Your task to perform on an android device: Go to accessibility settings Image 0: 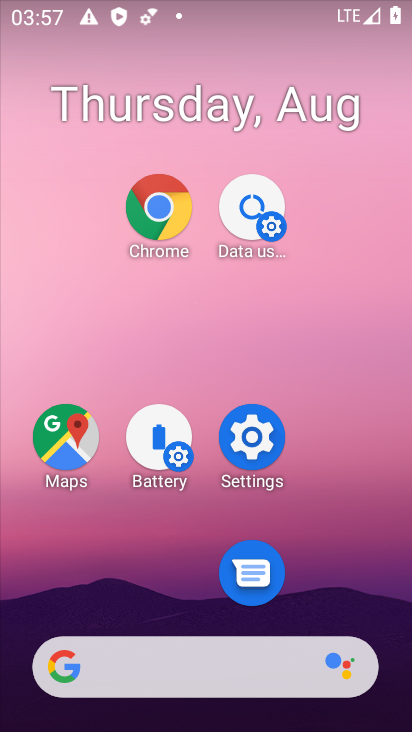
Step 0: drag from (280, 703) to (265, 257)
Your task to perform on an android device: Go to accessibility settings Image 1: 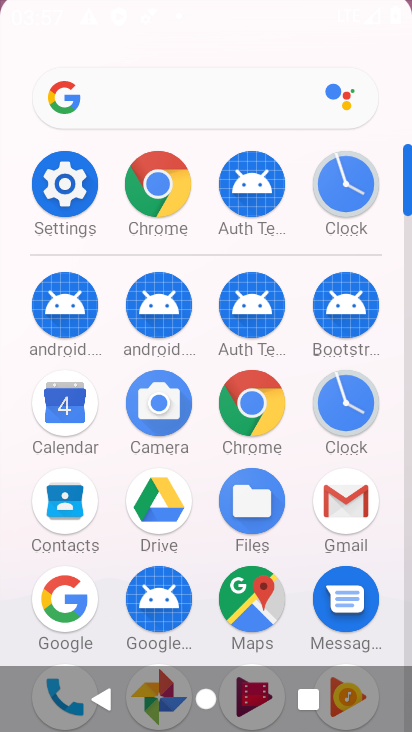
Step 1: drag from (277, 384) to (259, 128)
Your task to perform on an android device: Go to accessibility settings Image 2: 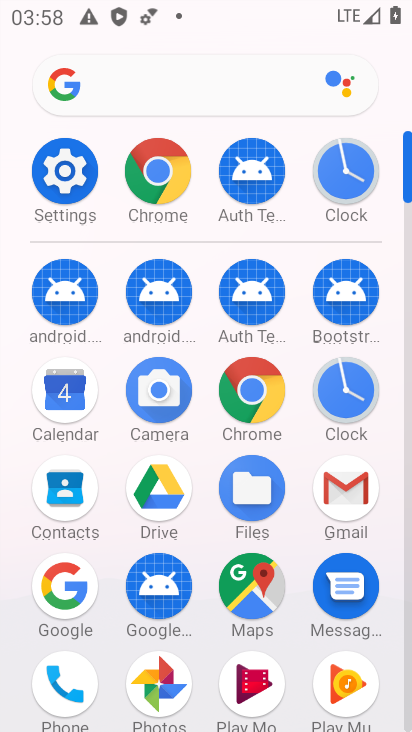
Step 2: click (69, 168)
Your task to perform on an android device: Go to accessibility settings Image 3: 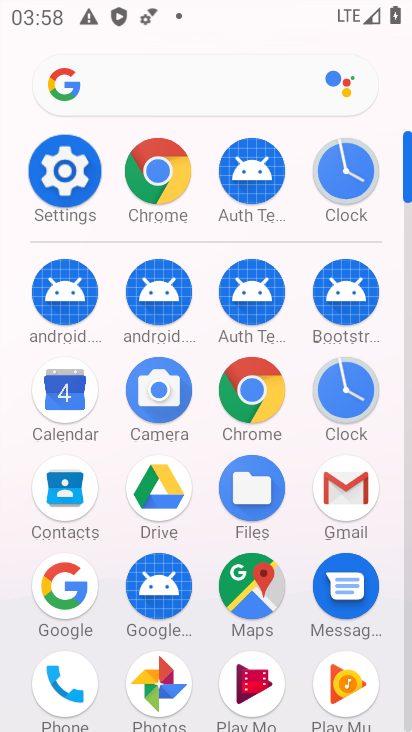
Step 3: click (69, 168)
Your task to perform on an android device: Go to accessibility settings Image 4: 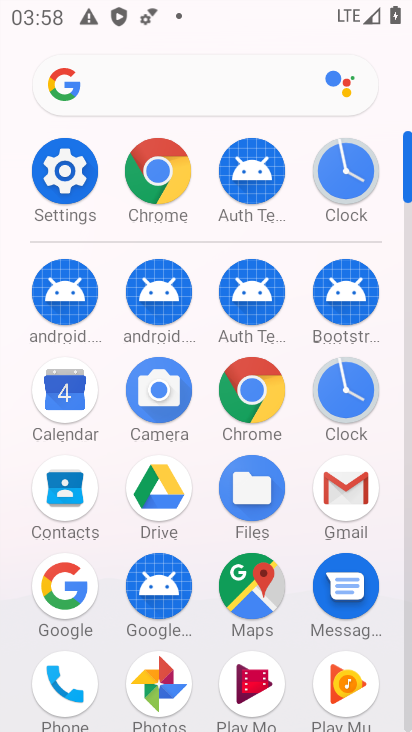
Step 4: click (71, 170)
Your task to perform on an android device: Go to accessibility settings Image 5: 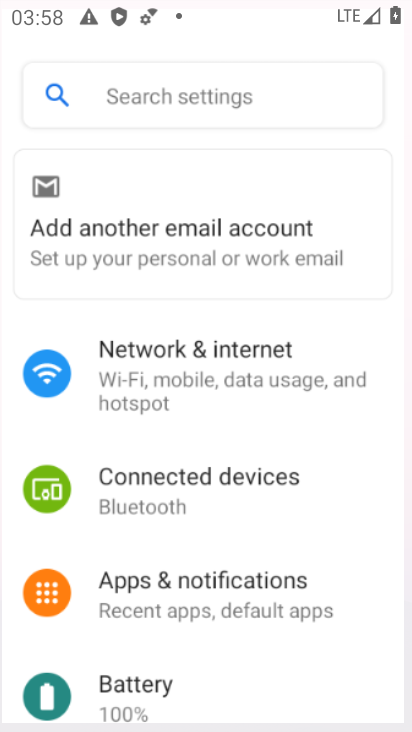
Step 5: click (71, 170)
Your task to perform on an android device: Go to accessibility settings Image 6: 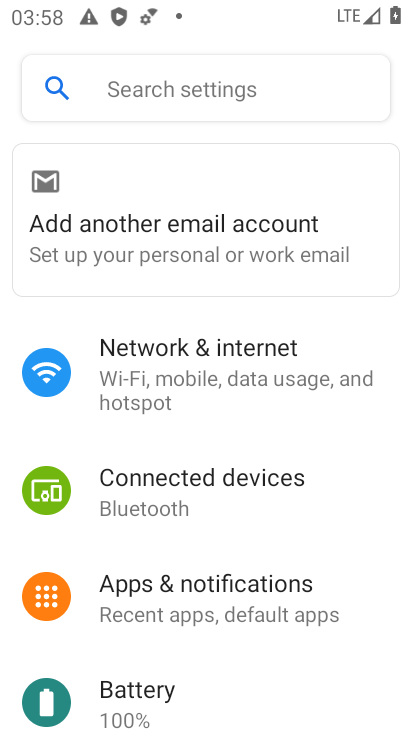
Step 6: click (71, 170)
Your task to perform on an android device: Go to accessibility settings Image 7: 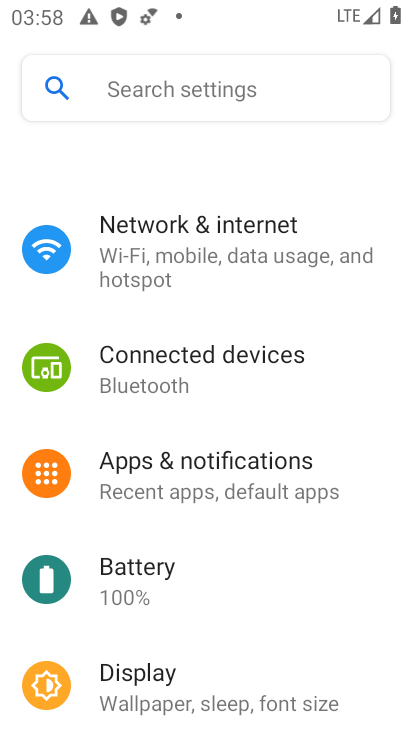
Step 7: click (71, 170)
Your task to perform on an android device: Go to accessibility settings Image 8: 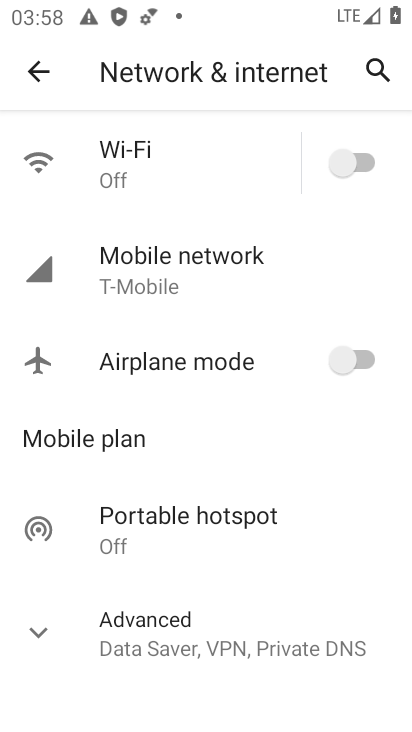
Step 8: click (33, 72)
Your task to perform on an android device: Go to accessibility settings Image 9: 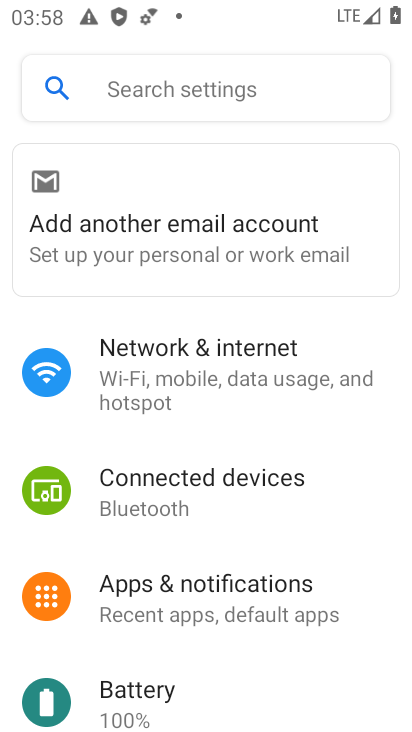
Step 9: drag from (203, 594) to (151, 258)
Your task to perform on an android device: Go to accessibility settings Image 10: 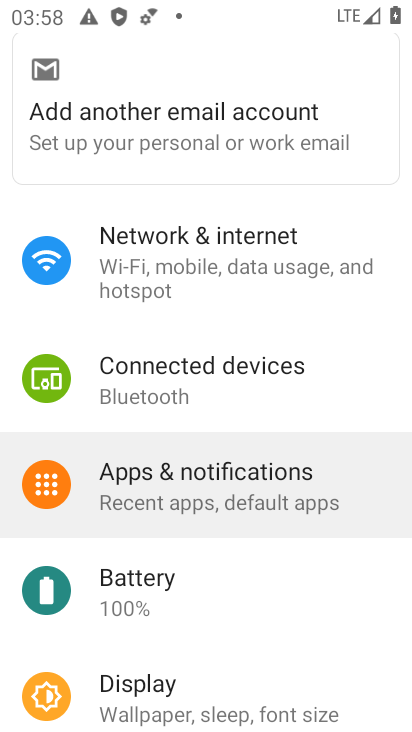
Step 10: drag from (208, 598) to (215, 187)
Your task to perform on an android device: Go to accessibility settings Image 11: 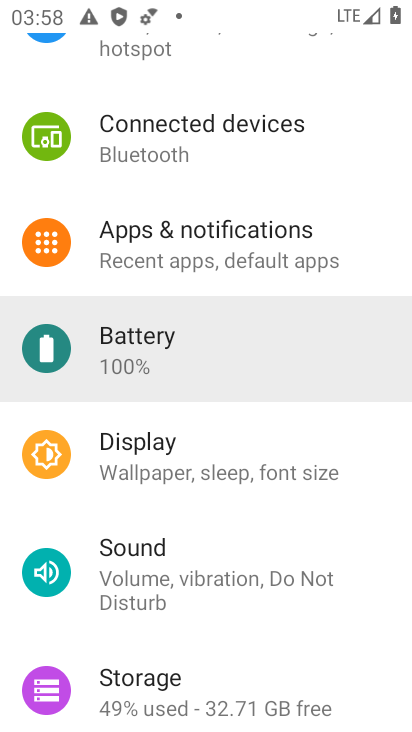
Step 11: drag from (256, 398) to (243, 177)
Your task to perform on an android device: Go to accessibility settings Image 12: 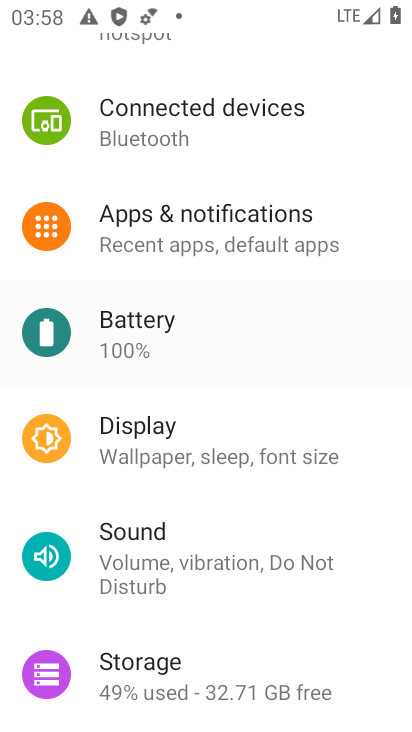
Step 12: drag from (269, 583) to (241, 289)
Your task to perform on an android device: Go to accessibility settings Image 13: 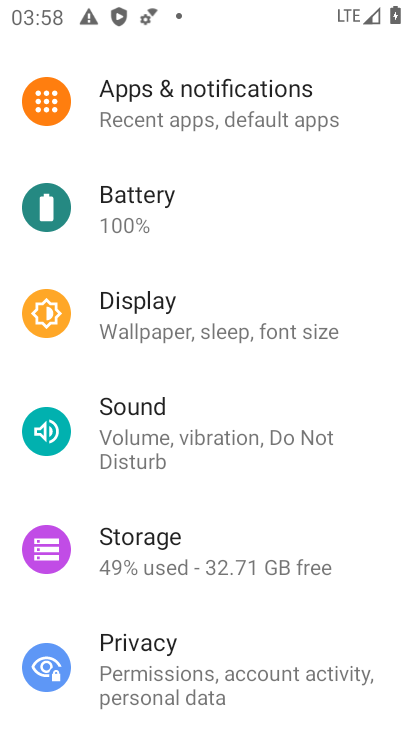
Step 13: drag from (304, 589) to (305, 258)
Your task to perform on an android device: Go to accessibility settings Image 14: 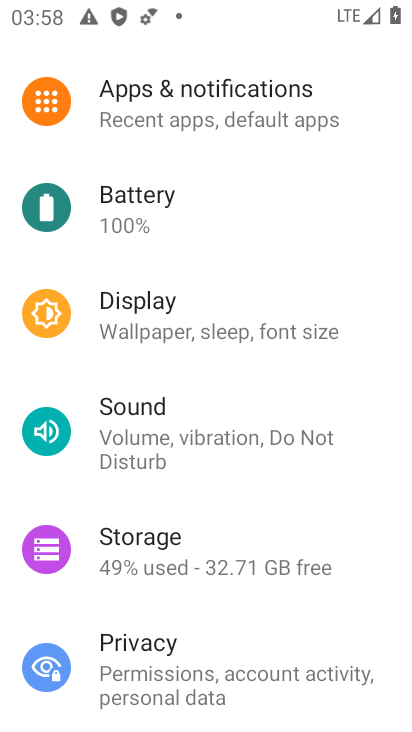
Step 14: drag from (246, 573) to (244, 273)
Your task to perform on an android device: Go to accessibility settings Image 15: 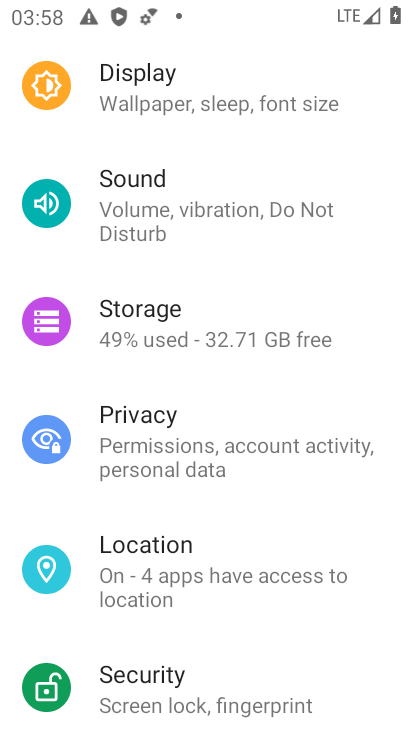
Step 15: drag from (239, 606) to (207, 314)
Your task to perform on an android device: Go to accessibility settings Image 16: 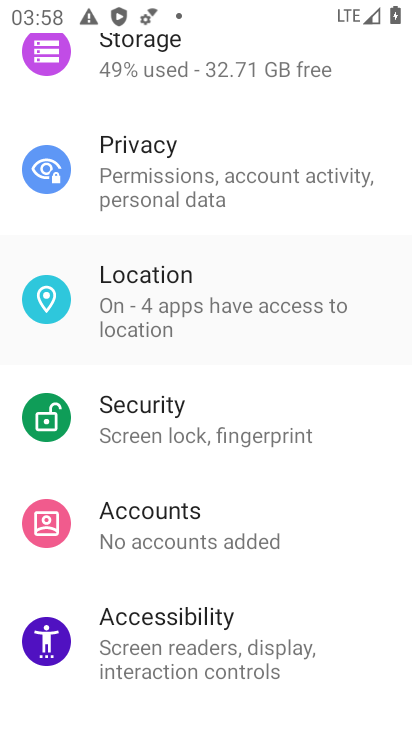
Step 16: drag from (226, 650) to (208, 287)
Your task to perform on an android device: Go to accessibility settings Image 17: 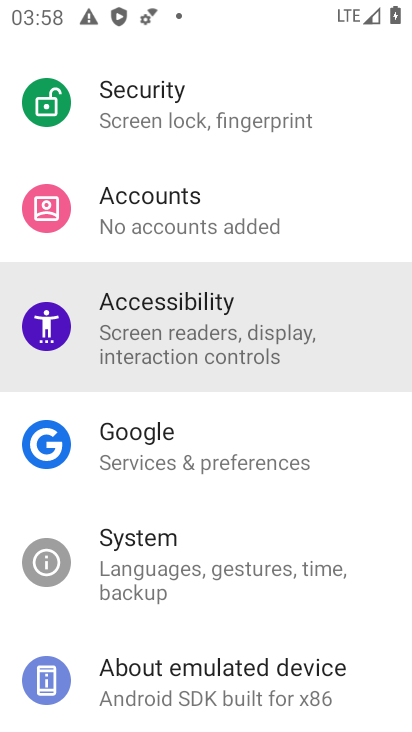
Step 17: drag from (159, 644) to (206, 361)
Your task to perform on an android device: Go to accessibility settings Image 18: 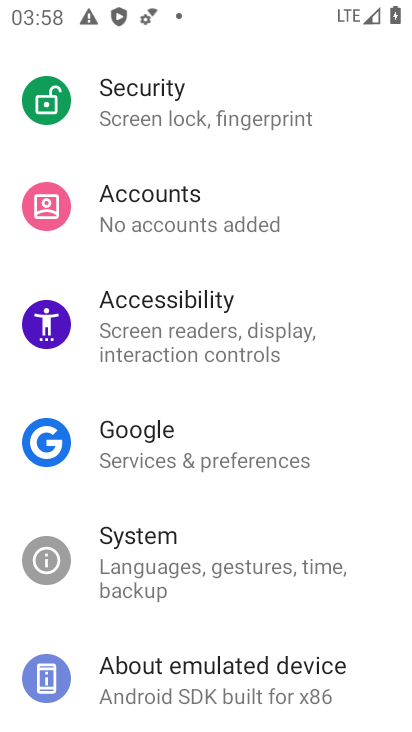
Step 18: click (165, 318)
Your task to perform on an android device: Go to accessibility settings Image 19: 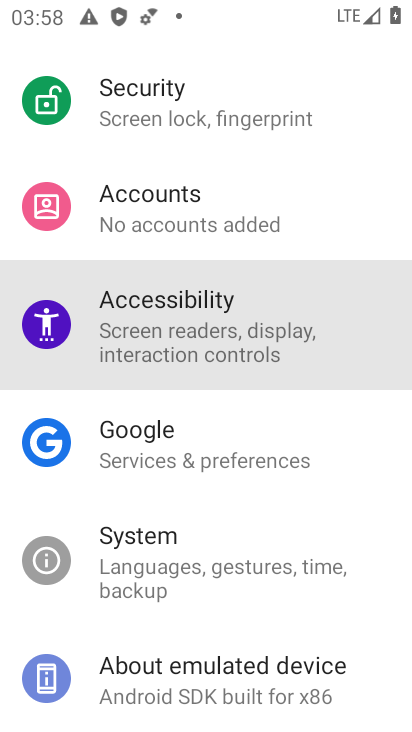
Step 19: click (165, 318)
Your task to perform on an android device: Go to accessibility settings Image 20: 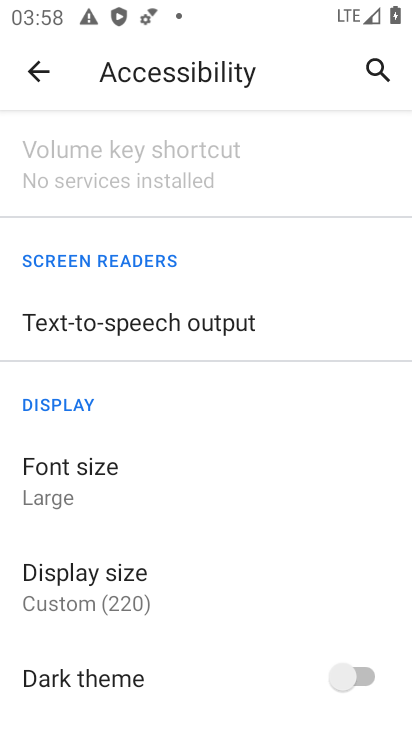
Step 20: task complete